Your task to perform on an android device: turn off priority inbox in the gmail app Image 0: 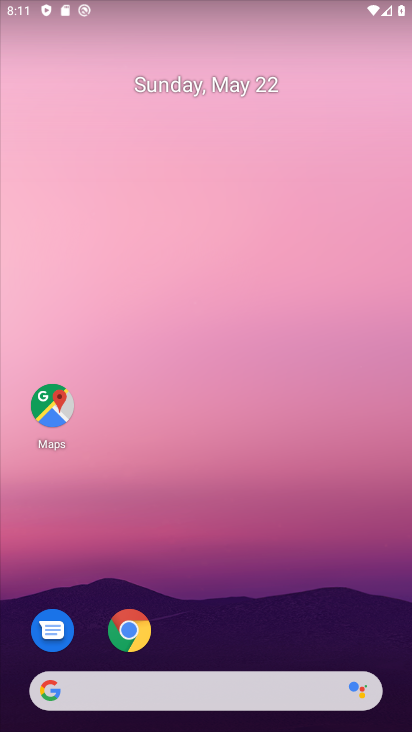
Step 0: task complete